Your task to perform on an android device: manage bookmarks in the chrome app Image 0: 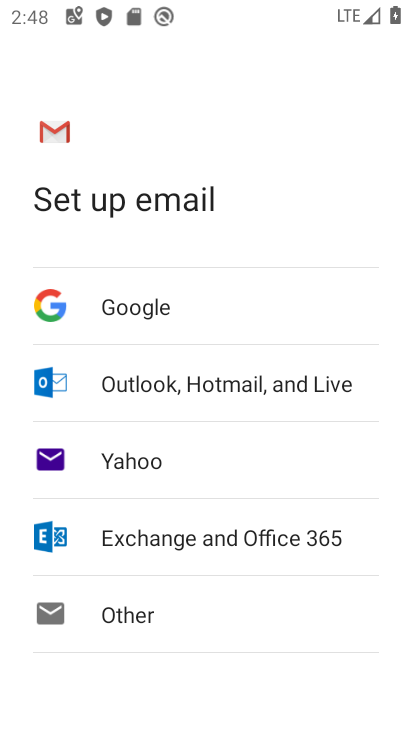
Step 0: press home button
Your task to perform on an android device: manage bookmarks in the chrome app Image 1: 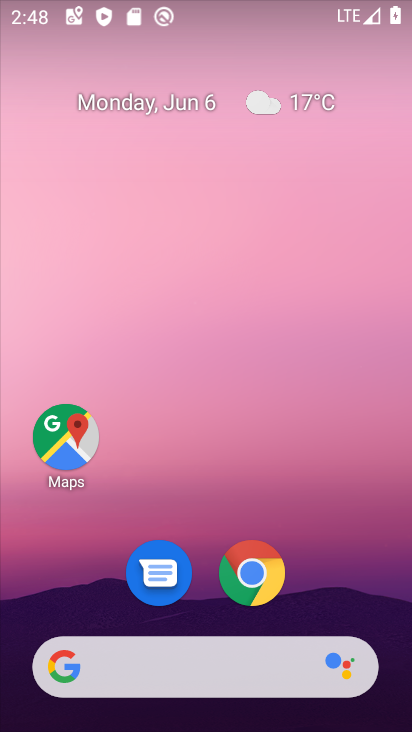
Step 1: drag from (371, 568) to (362, 165)
Your task to perform on an android device: manage bookmarks in the chrome app Image 2: 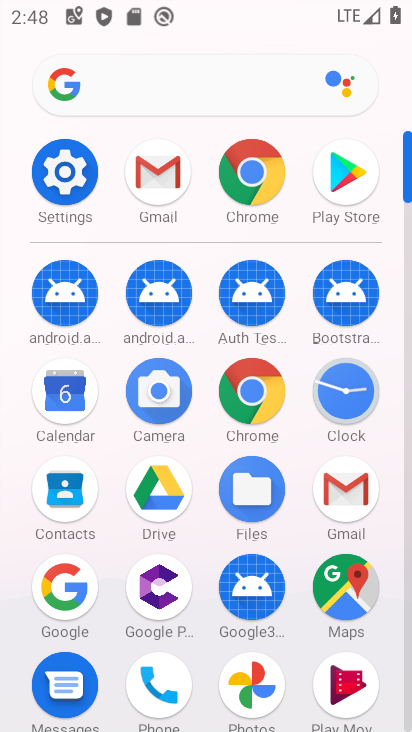
Step 2: click (260, 393)
Your task to perform on an android device: manage bookmarks in the chrome app Image 3: 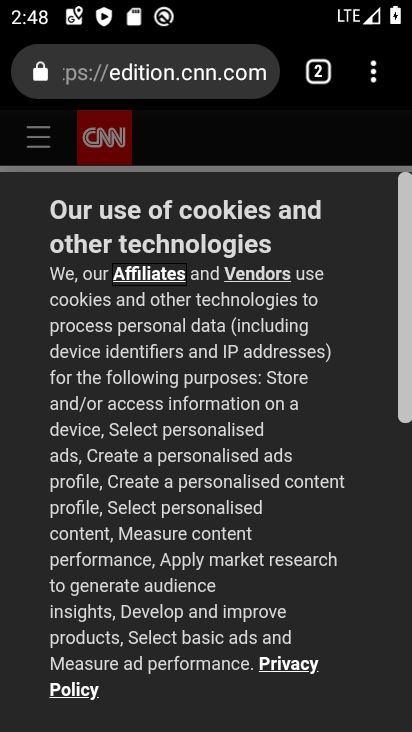
Step 3: click (375, 84)
Your task to perform on an android device: manage bookmarks in the chrome app Image 4: 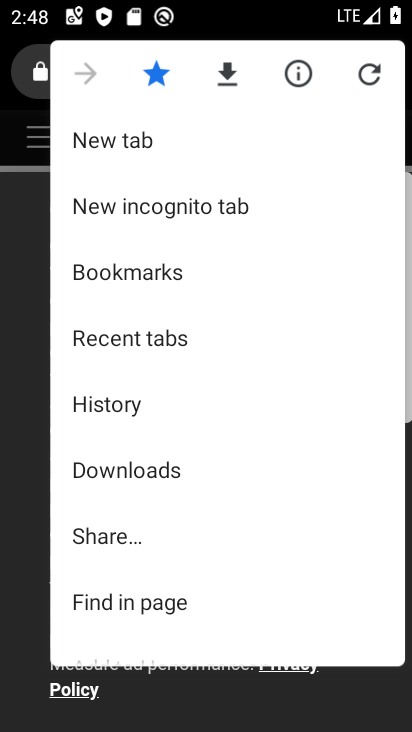
Step 4: drag from (289, 483) to (298, 361)
Your task to perform on an android device: manage bookmarks in the chrome app Image 5: 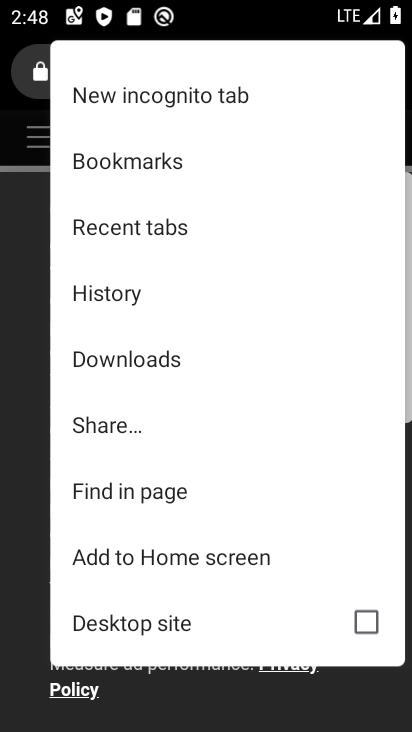
Step 5: drag from (275, 537) to (276, 414)
Your task to perform on an android device: manage bookmarks in the chrome app Image 6: 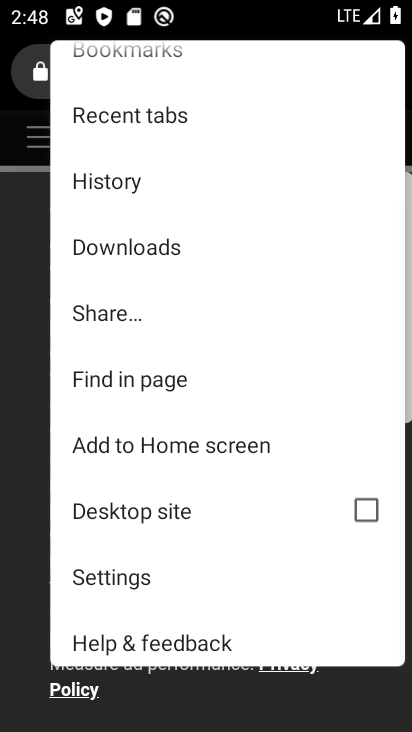
Step 6: drag from (262, 255) to (264, 395)
Your task to perform on an android device: manage bookmarks in the chrome app Image 7: 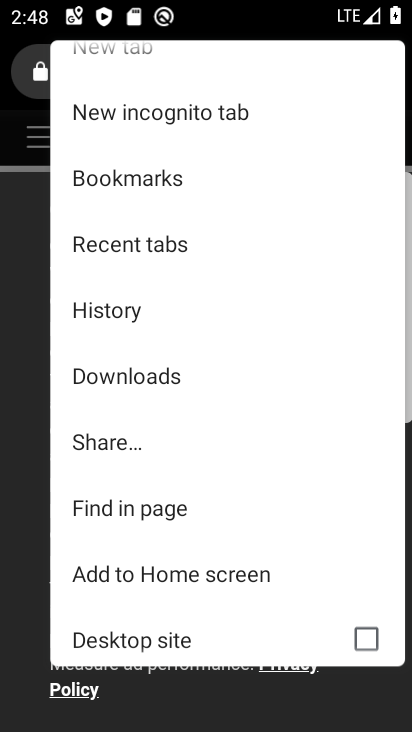
Step 7: drag from (264, 226) to (265, 356)
Your task to perform on an android device: manage bookmarks in the chrome app Image 8: 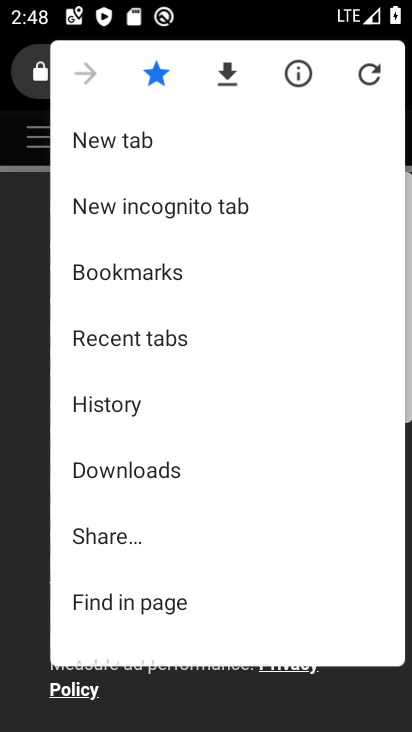
Step 8: click (186, 291)
Your task to perform on an android device: manage bookmarks in the chrome app Image 9: 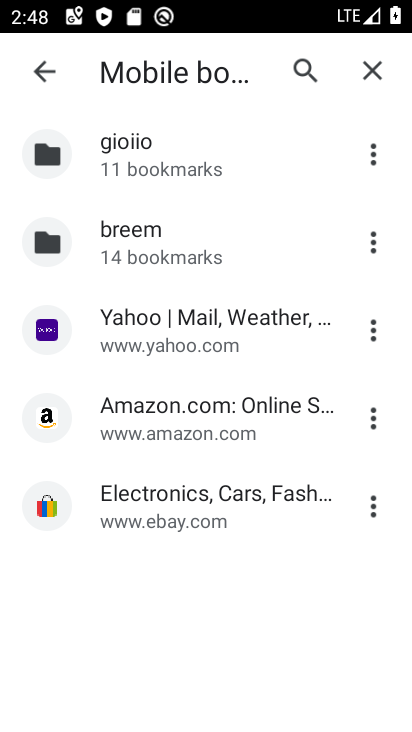
Step 9: click (373, 252)
Your task to perform on an android device: manage bookmarks in the chrome app Image 10: 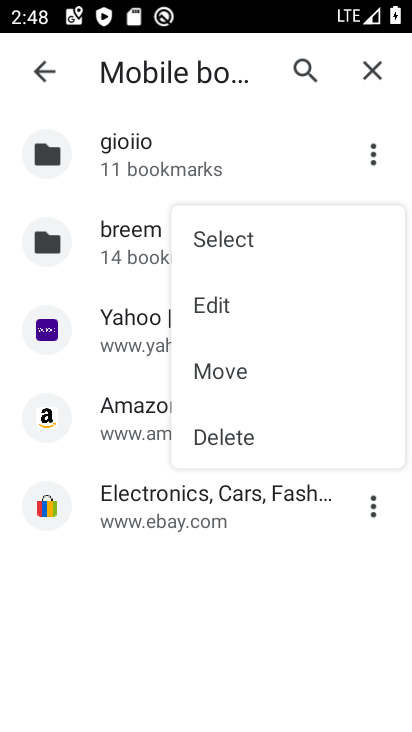
Step 10: click (254, 294)
Your task to perform on an android device: manage bookmarks in the chrome app Image 11: 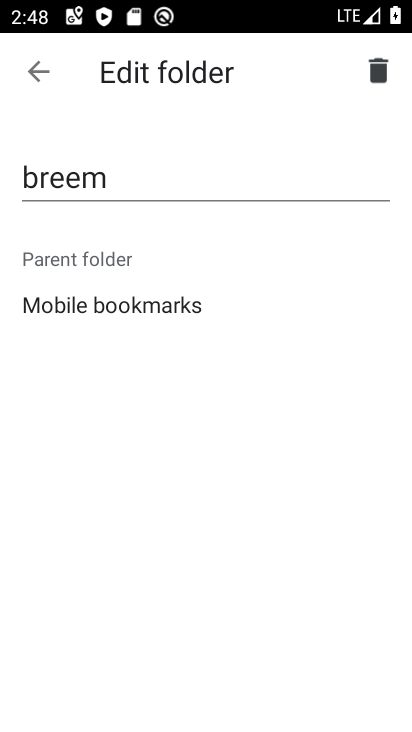
Step 11: click (188, 193)
Your task to perform on an android device: manage bookmarks in the chrome app Image 12: 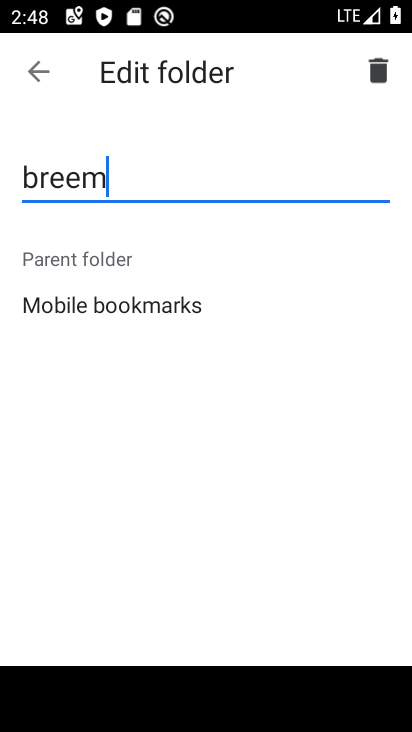
Step 12: type "m"
Your task to perform on an android device: manage bookmarks in the chrome app Image 13: 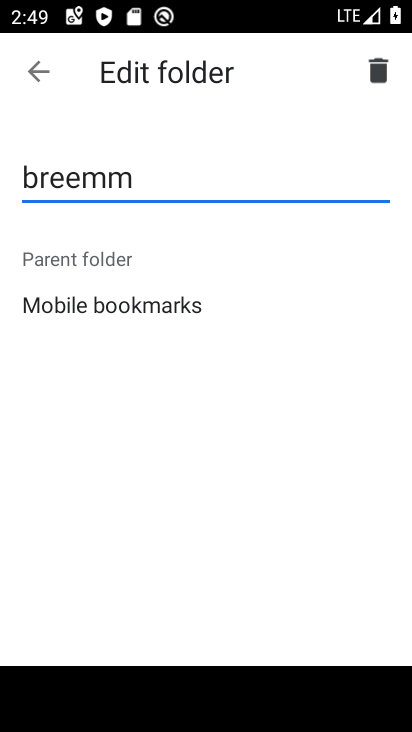
Step 13: click (26, 70)
Your task to perform on an android device: manage bookmarks in the chrome app Image 14: 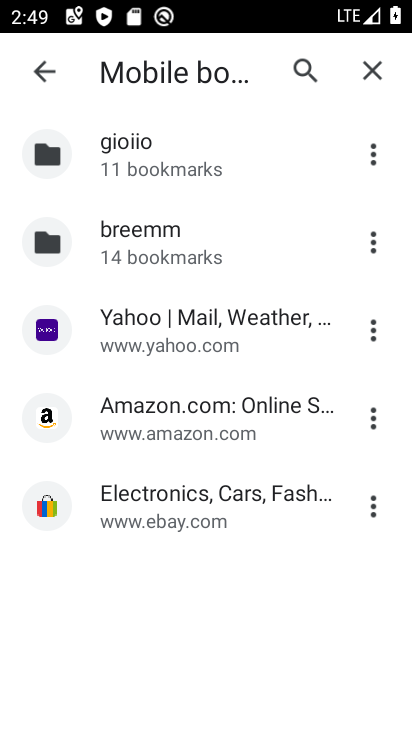
Step 14: task complete